Your task to perform on an android device: Open calendar and show me the first week of next month Image 0: 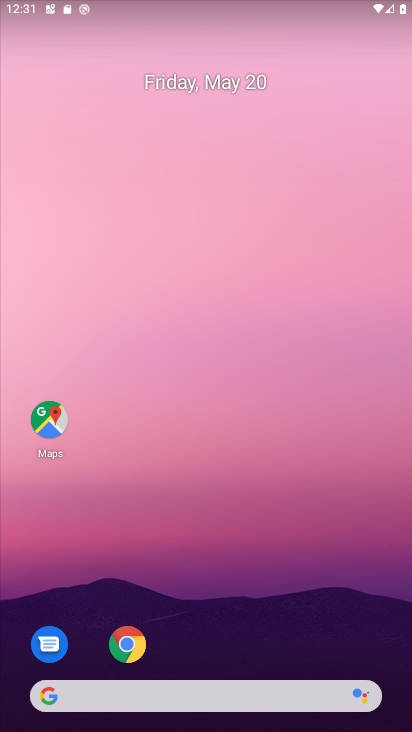
Step 0: drag from (195, 678) to (186, 330)
Your task to perform on an android device: Open calendar and show me the first week of next month Image 1: 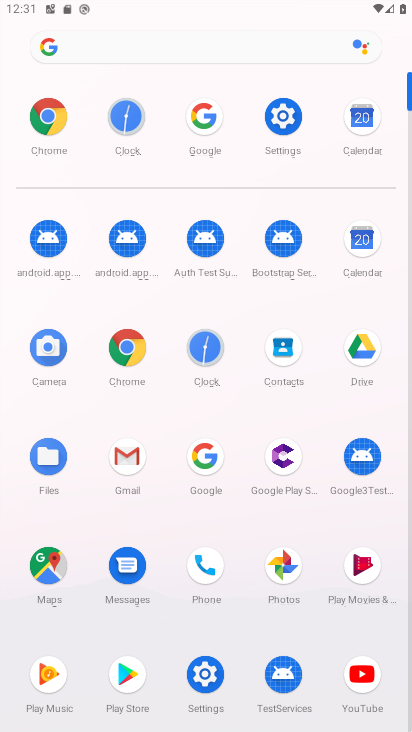
Step 1: click (368, 252)
Your task to perform on an android device: Open calendar and show me the first week of next month Image 2: 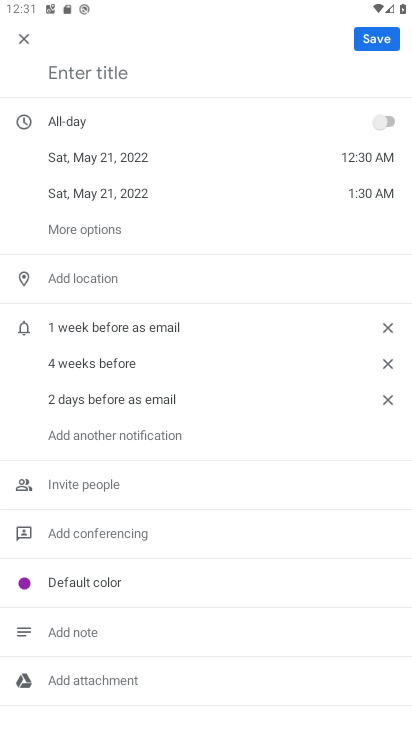
Step 2: click (33, 36)
Your task to perform on an android device: Open calendar and show me the first week of next month Image 3: 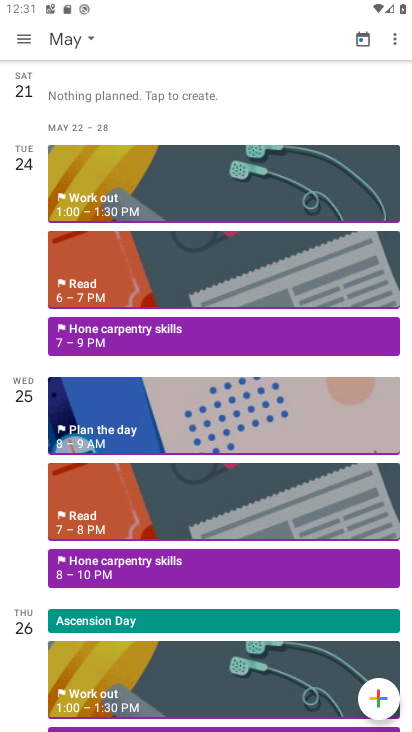
Step 3: click (90, 36)
Your task to perform on an android device: Open calendar and show me the first week of next month Image 4: 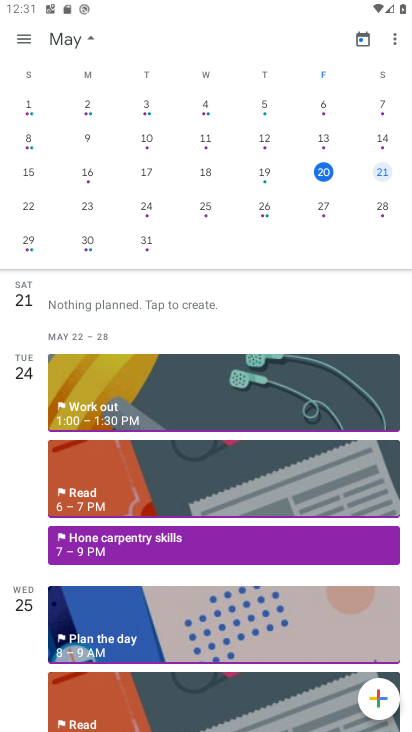
Step 4: drag from (377, 237) to (5, 241)
Your task to perform on an android device: Open calendar and show me the first week of next month Image 5: 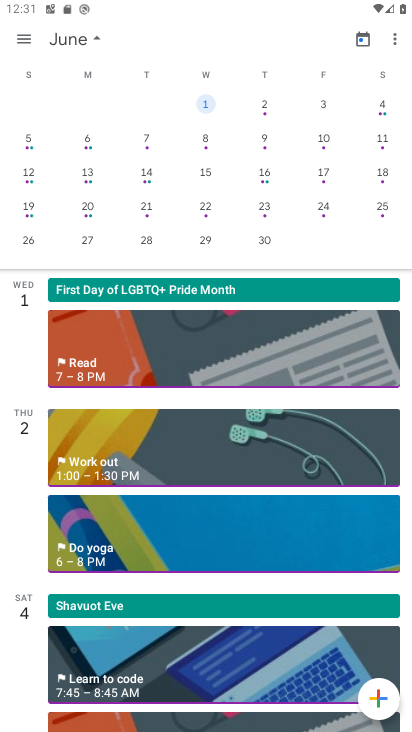
Step 5: click (221, 110)
Your task to perform on an android device: Open calendar and show me the first week of next month Image 6: 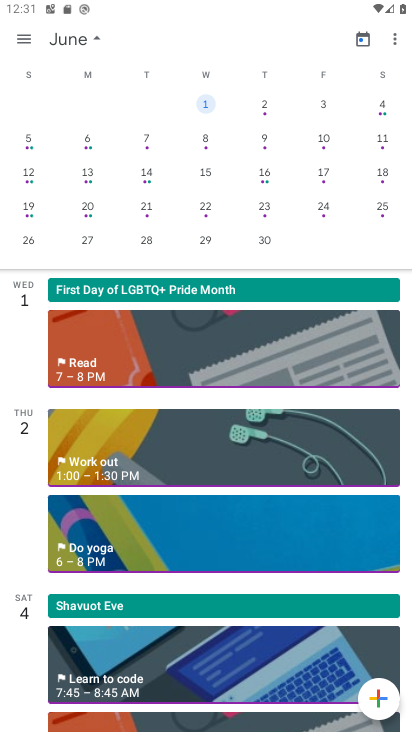
Step 6: task complete